Your task to perform on an android device: Open the stopwatch Image 0: 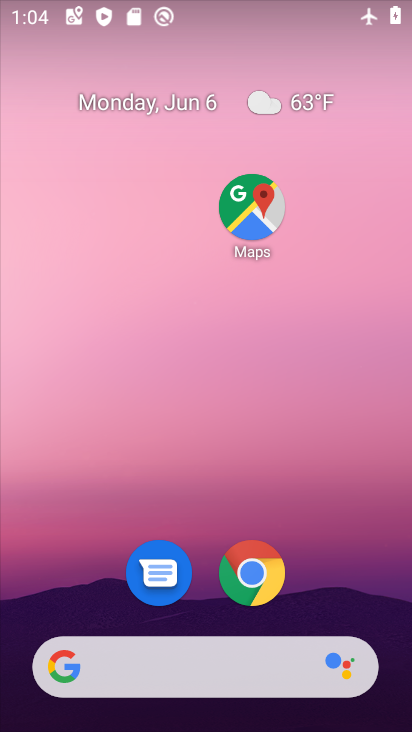
Step 0: drag from (254, 520) to (113, 43)
Your task to perform on an android device: Open the stopwatch Image 1: 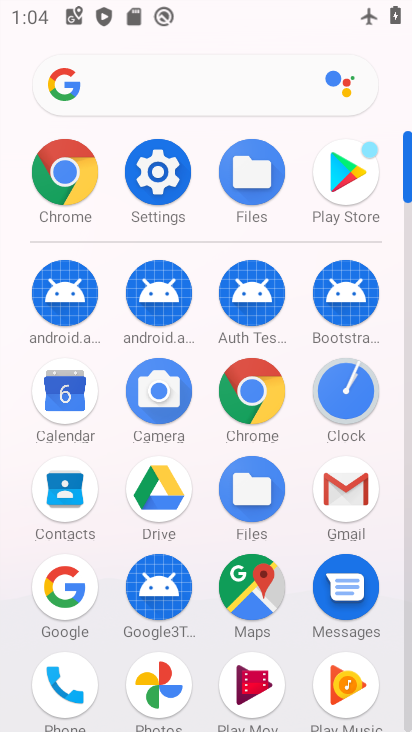
Step 1: click (344, 389)
Your task to perform on an android device: Open the stopwatch Image 2: 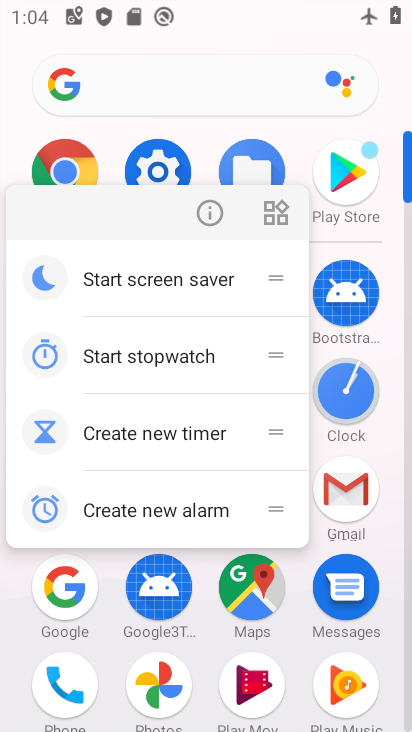
Step 2: click (337, 392)
Your task to perform on an android device: Open the stopwatch Image 3: 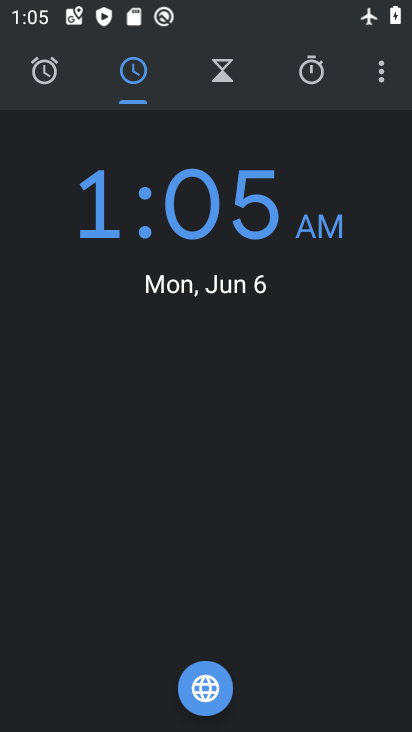
Step 3: click (308, 77)
Your task to perform on an android device: Open the stopwatch Image 4: 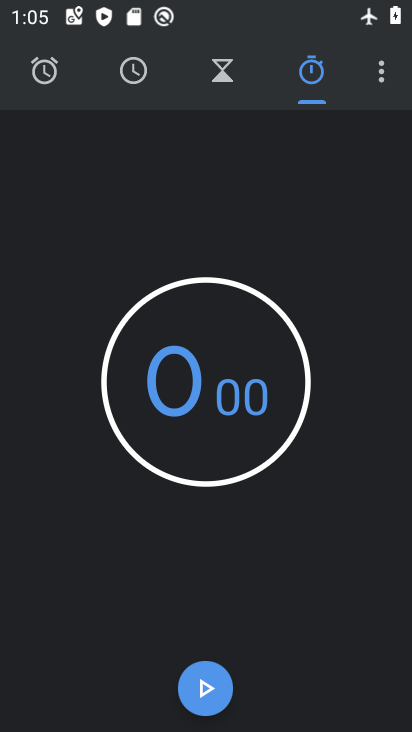
Step 4: click (197, 678)
Your task to perform on an android device: Open the stopwatch Image 5: 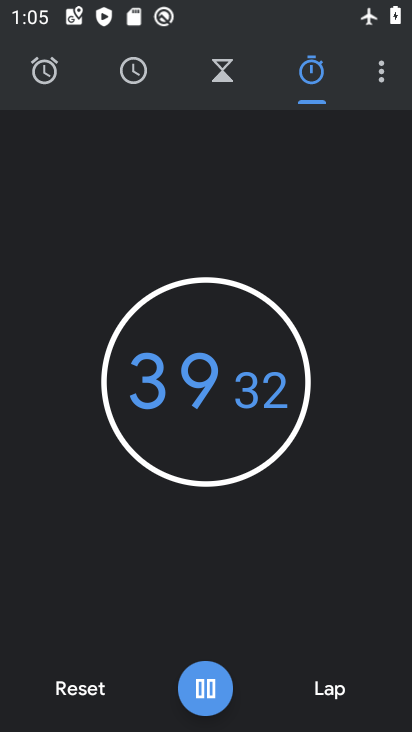
Step 5: click (230, 694)
Your task to perform on an android device: Open the stopwatch Image 6: 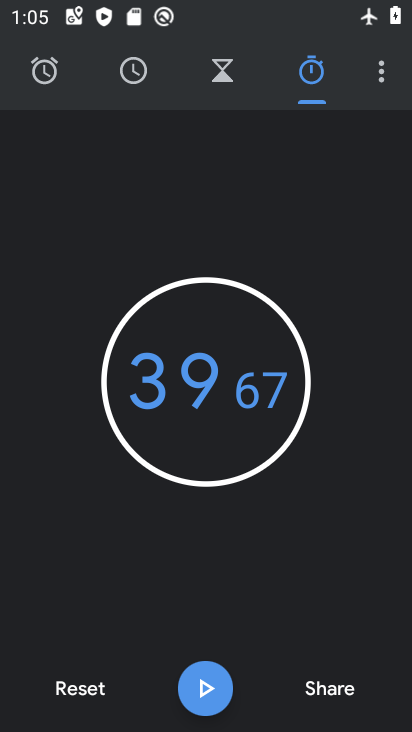
Step 6: task complete